Your task to perform on an android device: move an email to a new category in the gmail app Image 0: 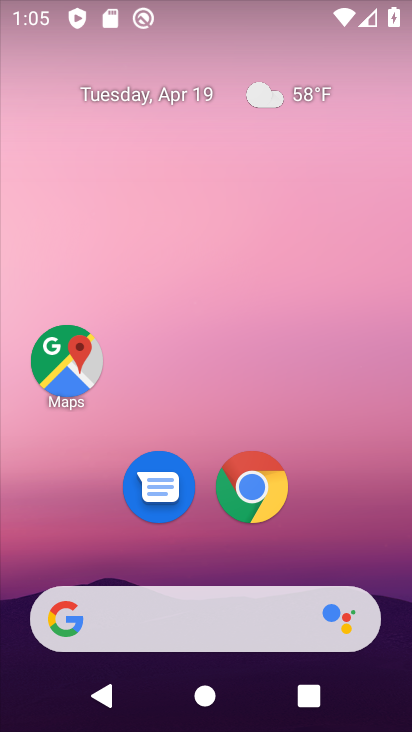
Step 0: drag from (202, 724) to (197, 64)
Your task to perform on an android device: move an email to a new category in the gmail app Image 1: 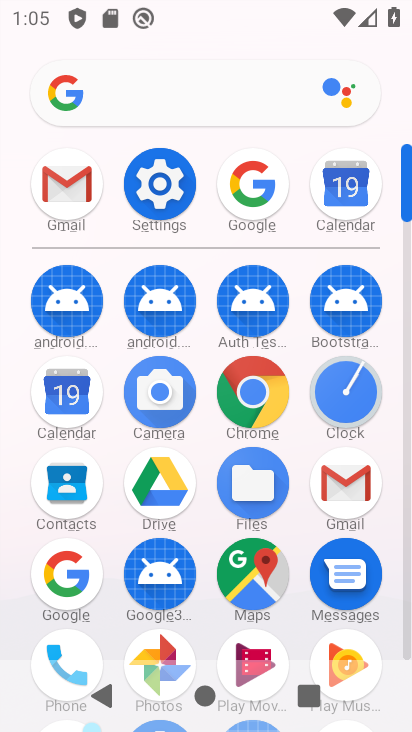
Step 1: click (339, 488)
Your task to perform on an android device: move an email to a new category in the gmail app Image 2: 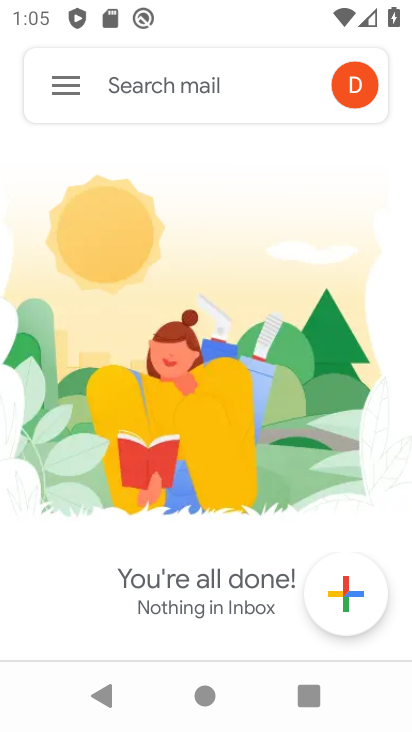
Step 2: task complete